Your task to perform on an android device: Go to Google maps Image 0: 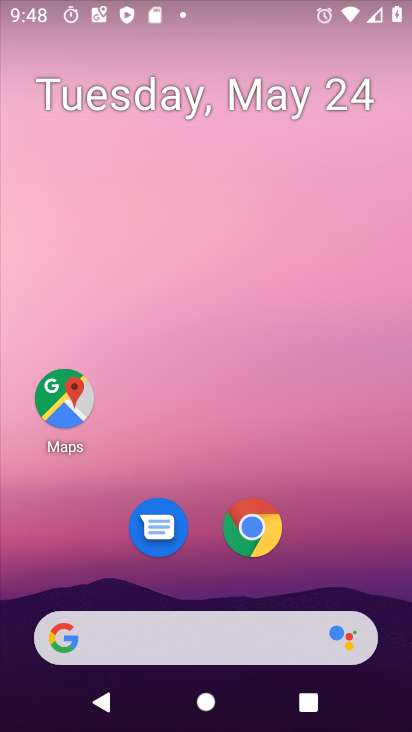
Step 0: click (60, 388)
Your task to perform on an android device: Go to Google maps Image 1: 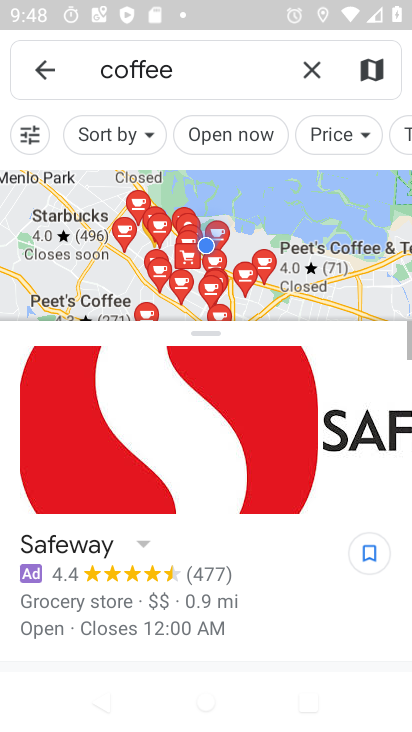
Step 1: click (44, 70)
Your task to perform on an android device: Go to Google maps Image 2: 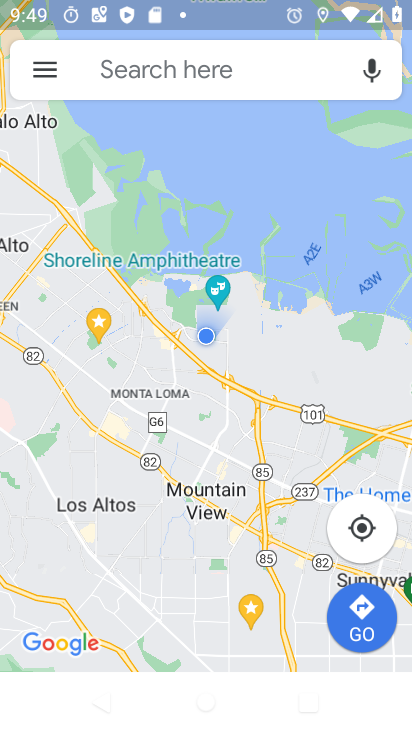
Step 2: task complete